Your task to perform on an android device: When is my next appointment? Image 0: 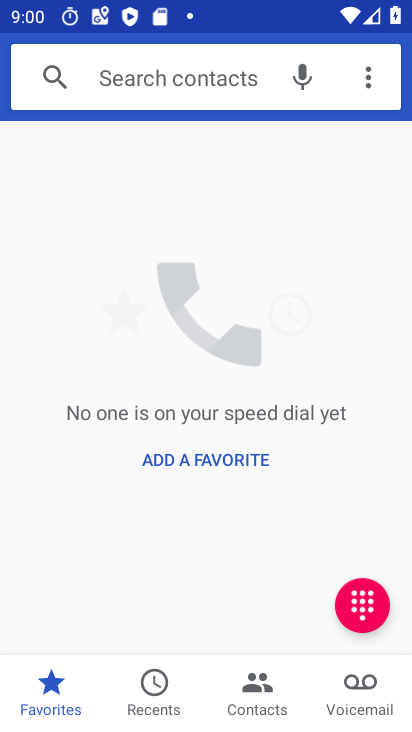
Step 0: press home button
Your task to perform on an android device: When is my next appointment? Image 1: 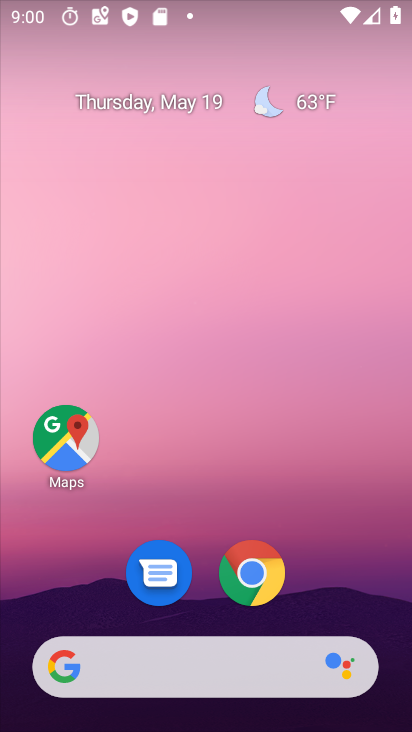
Step 1: drag from (333, 623) to (359, 7)
Your task to perform on an android device: When is my next appointment? Image 2: 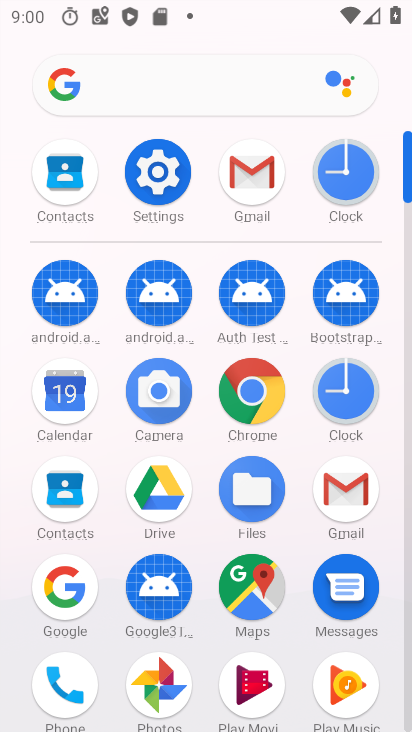
Step 2: click (52, 398)
Your task to perform on an android device: When is my next appointment? Image 3: 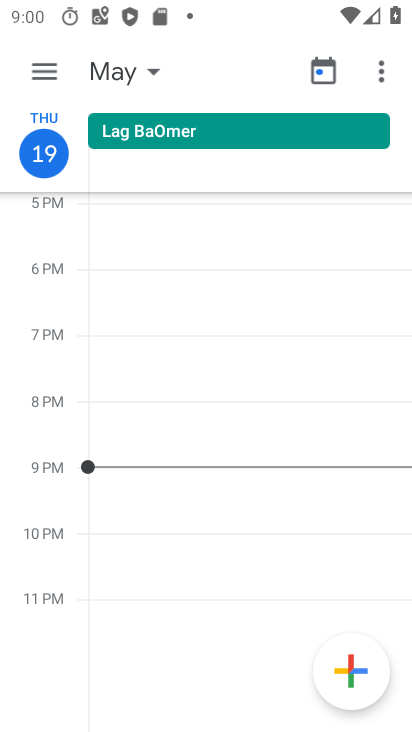
Step 3: click (49, 63)
Your task to perform on an android device: When is my next appointment? Image 4: 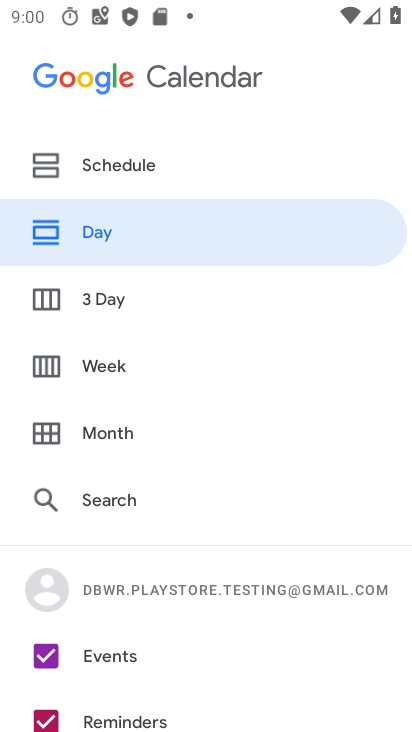
Step 4: click (99, 170)
Your task to perform on an android device: When is my next appointment? Image 5: 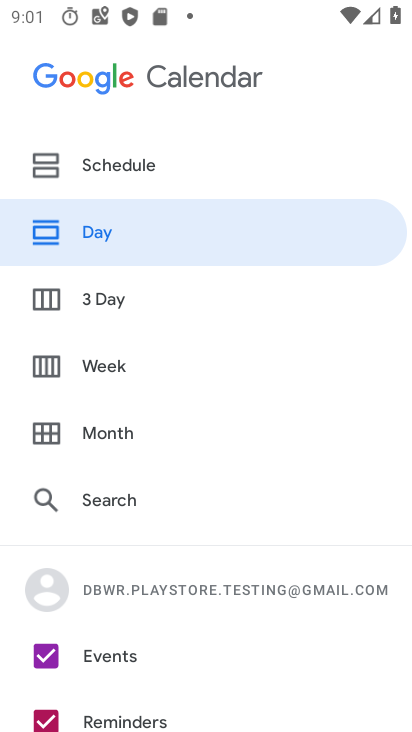
Step 5: drag from (197, 606) to (170, 401)
Your task to perform on an android device: When is my next appointment? Image 6: 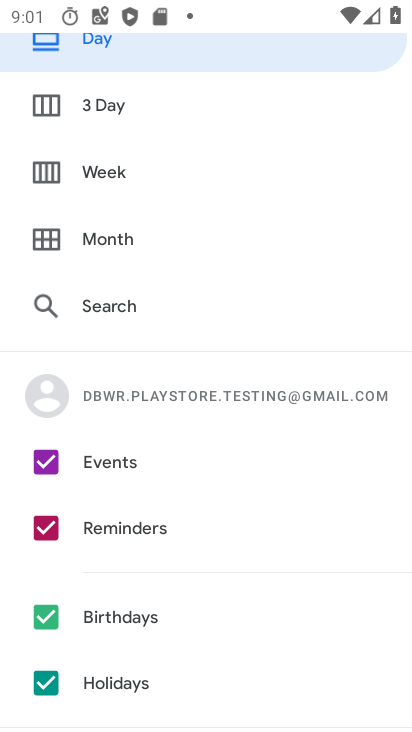
Step 6: drag from (138, 170) to (156, 526)
Your task to perform on an android device: When is my next appointment? Image 7: 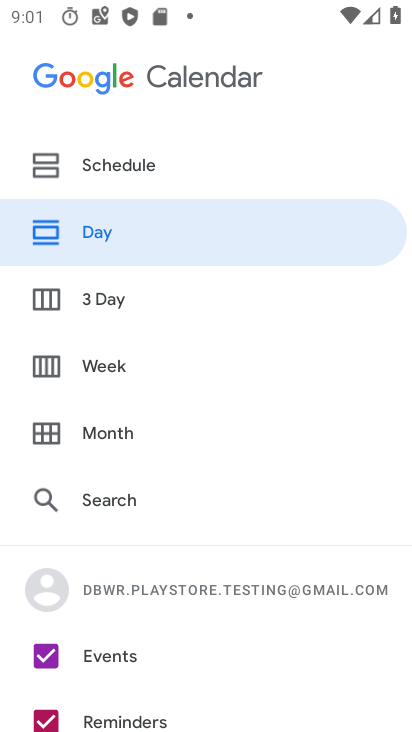
Step 7: click (87, 172)
Your task to perform on an android device: When is my next appointment? Image 8: 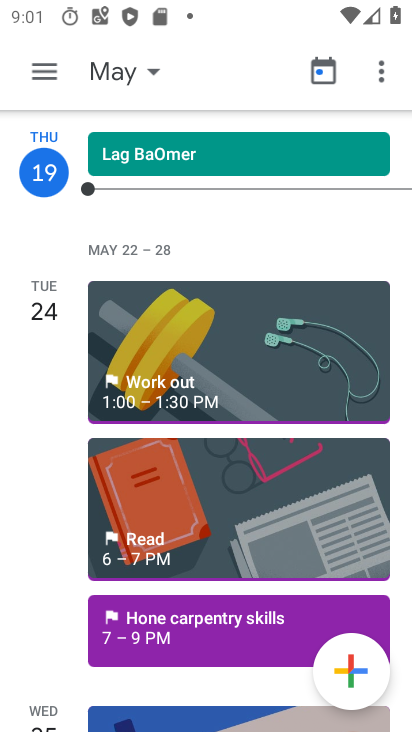
Step 8: click (186, 639)
Your task to perform on an android device: When is my next appointment? Image 9: 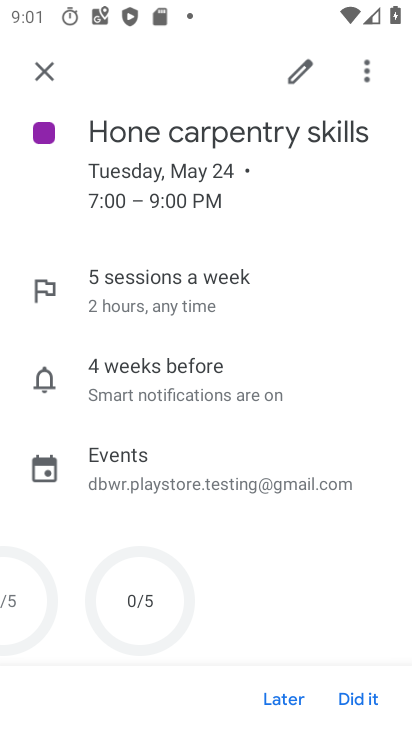
Step 9: task complete